Your task to perform on an android device: Add "bose soundlink" to the cart on amazon.com Image 0: 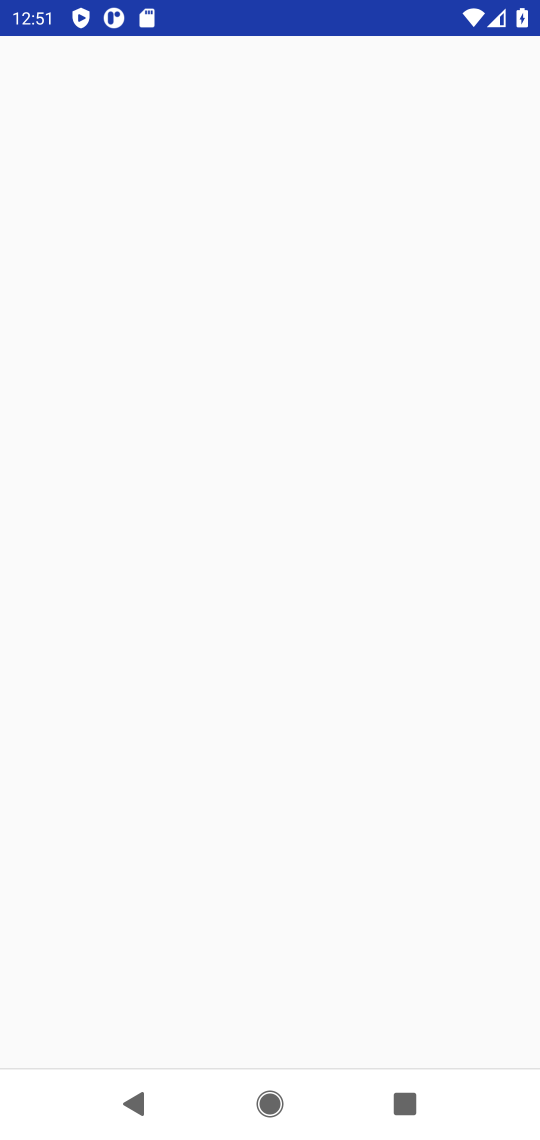
Step 0: drag from (314, 956) to (477, 336)
Your task to perform on an android device: Add "bose soundlink" to the cart on amazon.com Image 1: 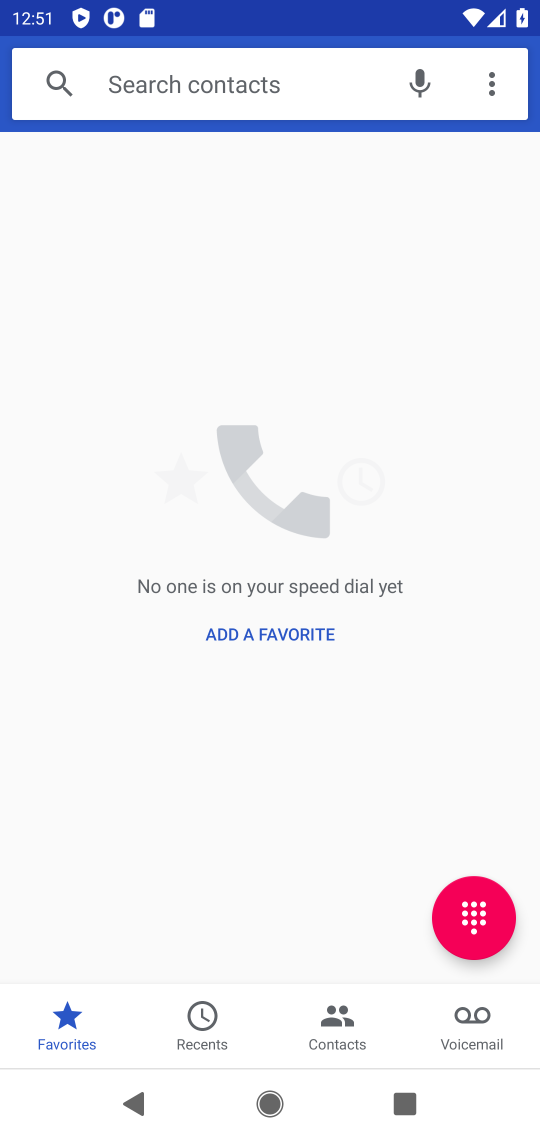
Step 1: press home button
Your task to perform on an android device: Add "bose soundlink" to the cart on amazon.com Image 2: 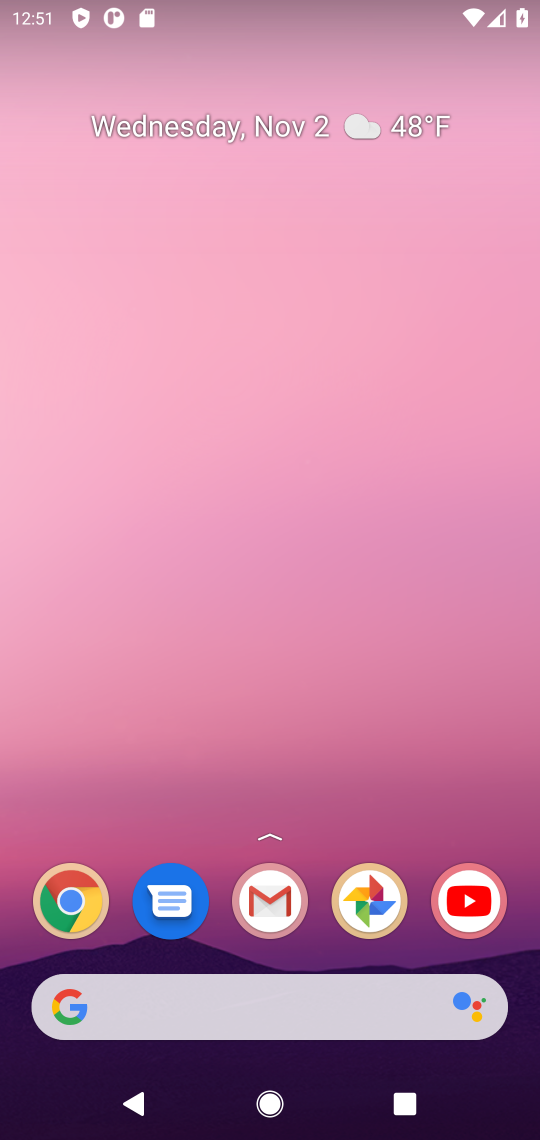
Step 2: drag from (322, 946) to (297, 220)
Your task to perform on an android device: Add "bose soundlink" to the cart on amazon.com Image 3: 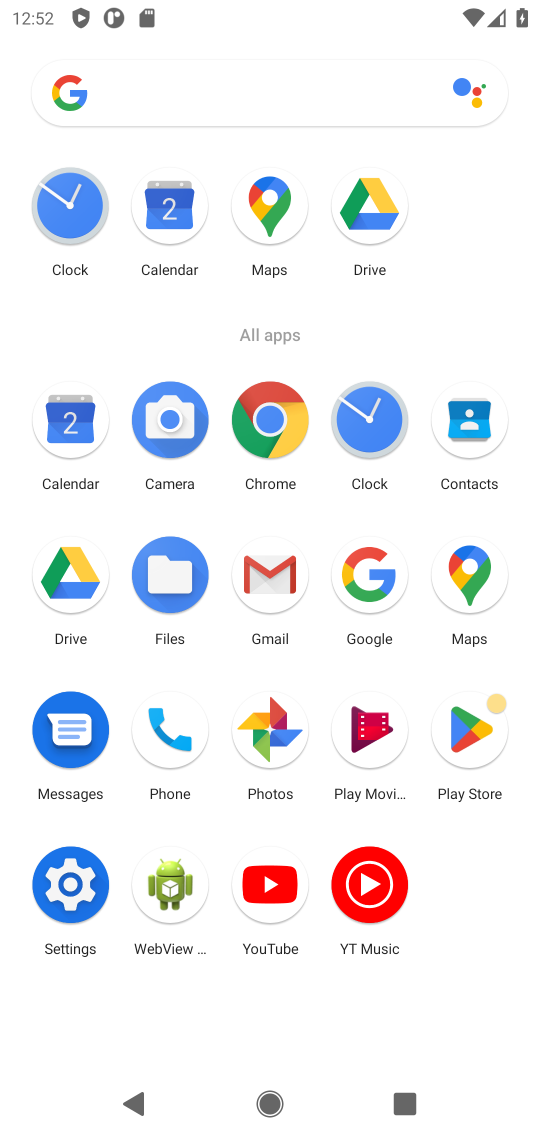
Step 3: click (260, 414)
Your task to perform on an android device: Add "bose soundlink" to the cart on amazon.com Image 4: 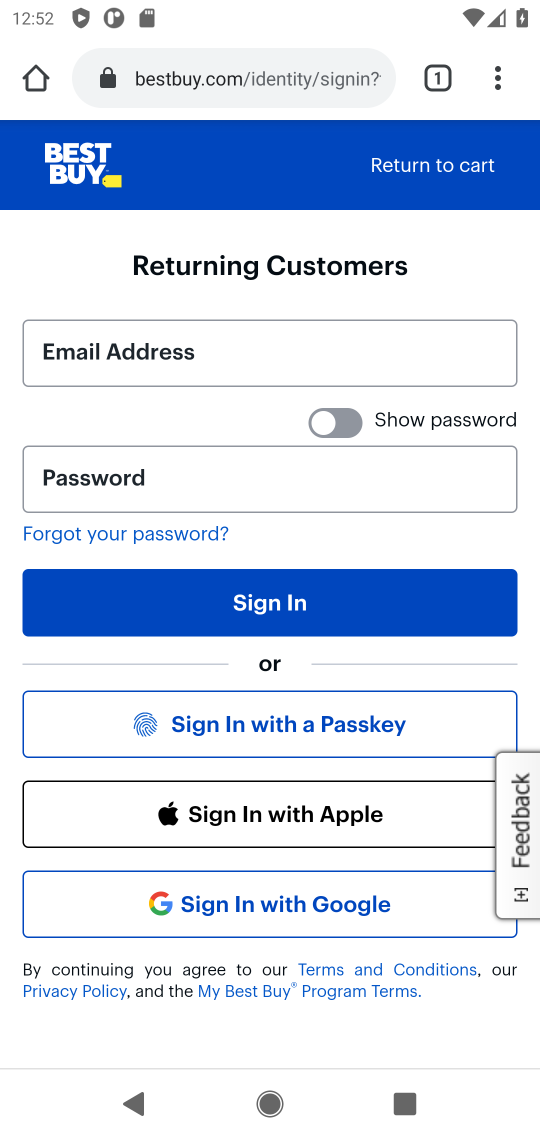
Step 4: click (281, 77)
Your task to perform on an android device: Add "bose soundlink" to the cart on amazon.com Image 5: 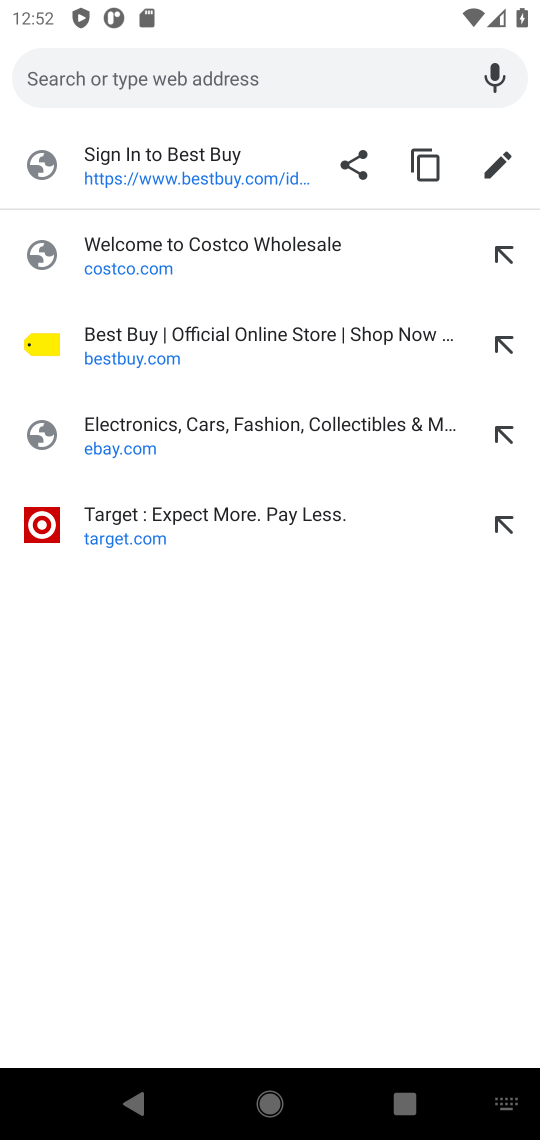
Step 5: type "amazon.com"
Your task to perform on an android device: Add "bose soundlink" to the cart on amazon.com Image 6: 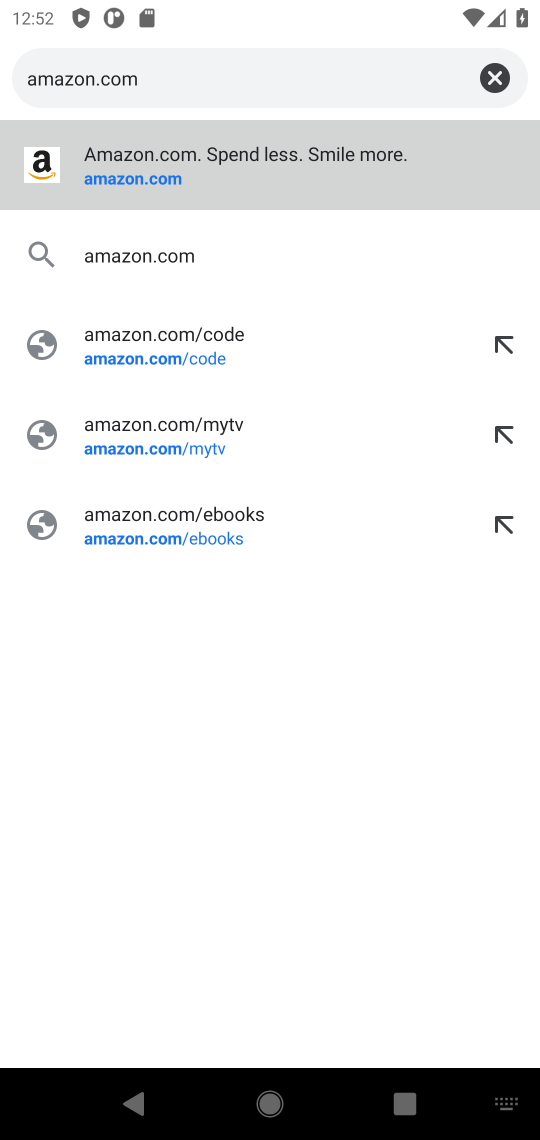
Step 6: press enter
Your task to perform on an android device: Add "bose soundlink" to the cart on amazon.com Image 7: 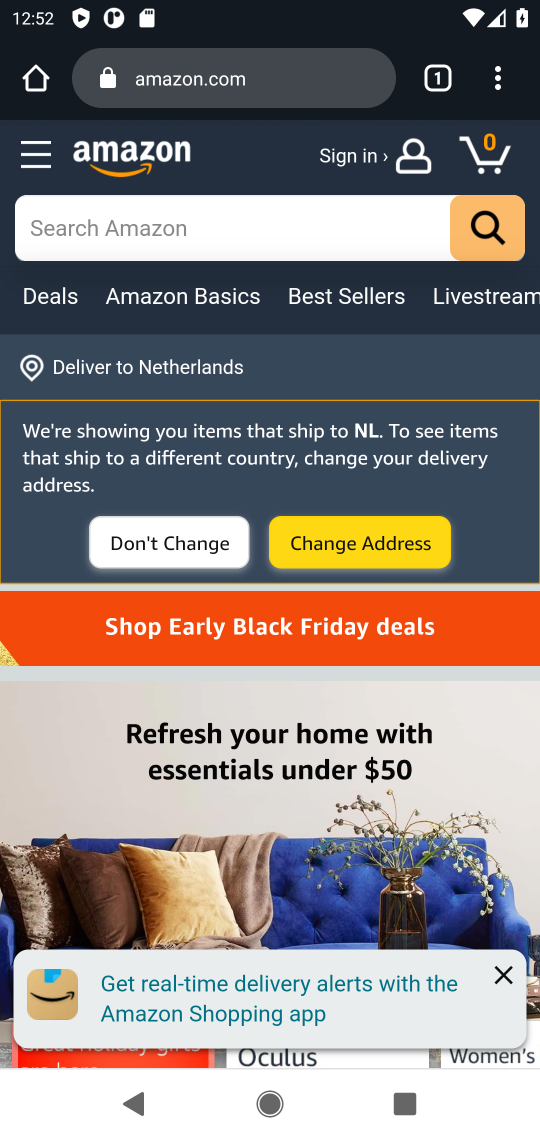
Step 7: click (108, 233)
Your task to perform on an android device: Add "bose soundlink" to the cart on amazon.com Image 8: 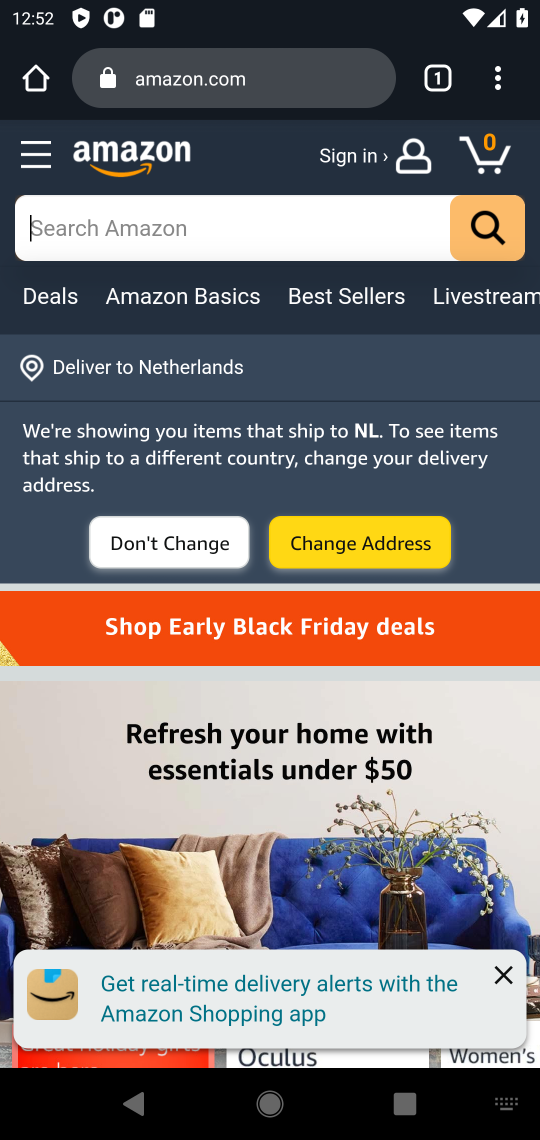
Step 8: type "bose soundlink"
Your task to perform on an android device: Add "bose soundlink" to the cart on amazon.com Image 9: 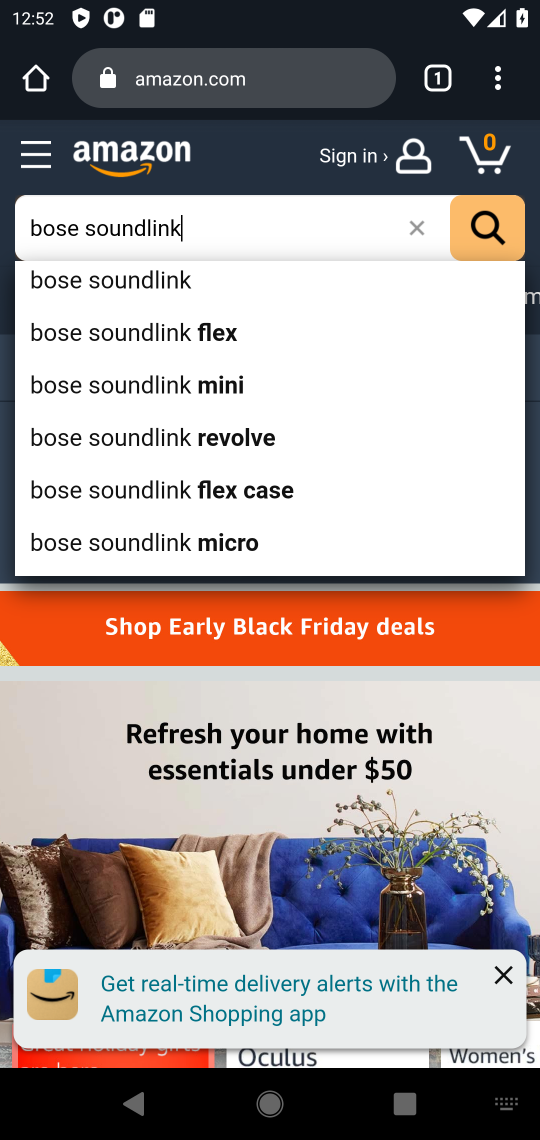
Step 9: press enter
Your task to perform on an android device: Add "bose soundlink" to the cart on amazon.com Image 10: 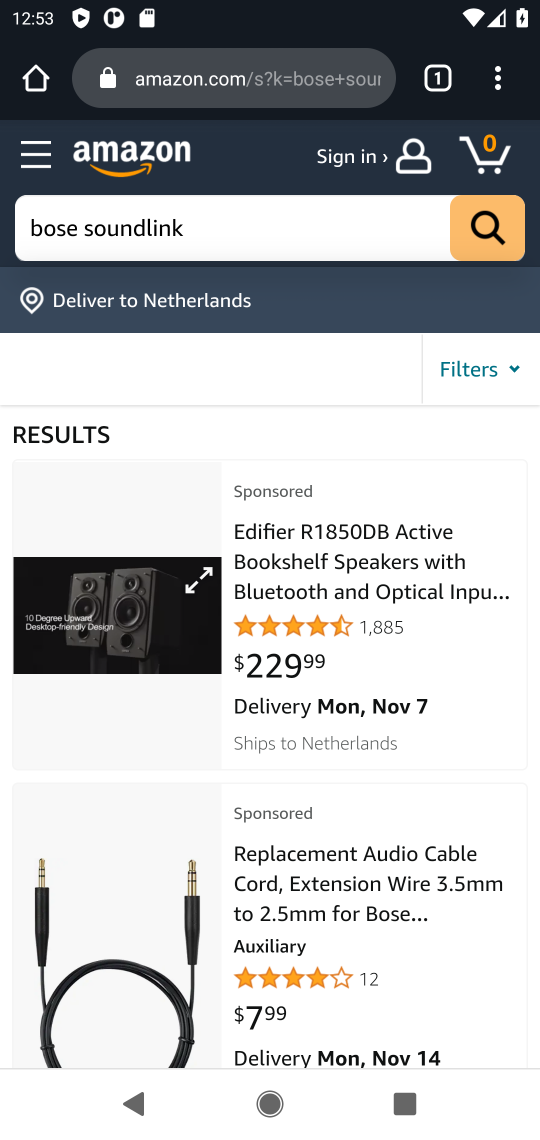
Step 10: drag from (344, 992) to (511, 302)
Your task to perform on an android device: Add "bose soundlink" to the cart on amazon.com Image 11: 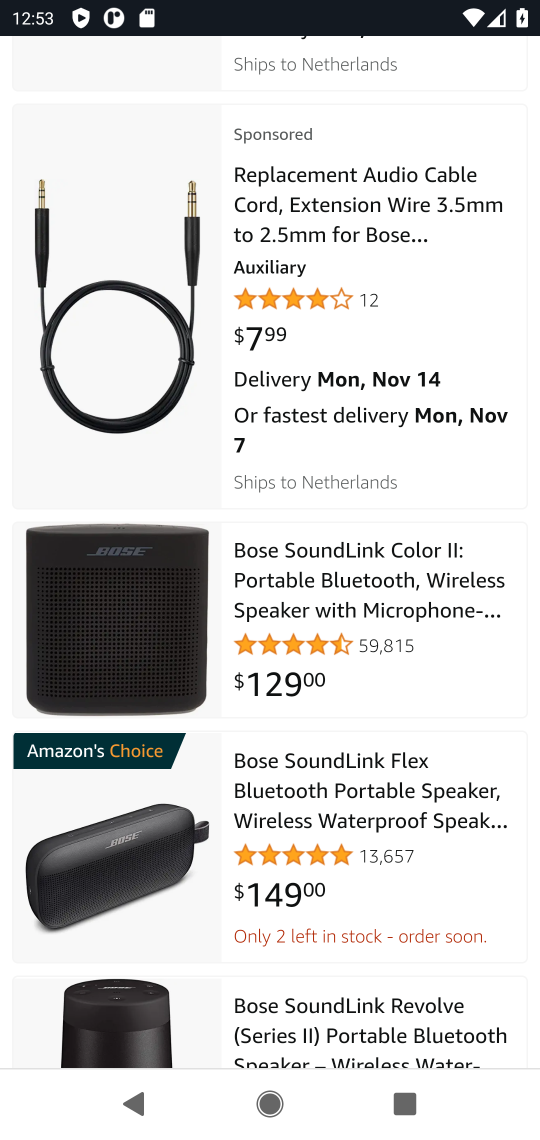
Step 11: click (327, 847)
Your task to perform on an android device: Add "bose soundlink" to the cart on amazon.com Image 12: 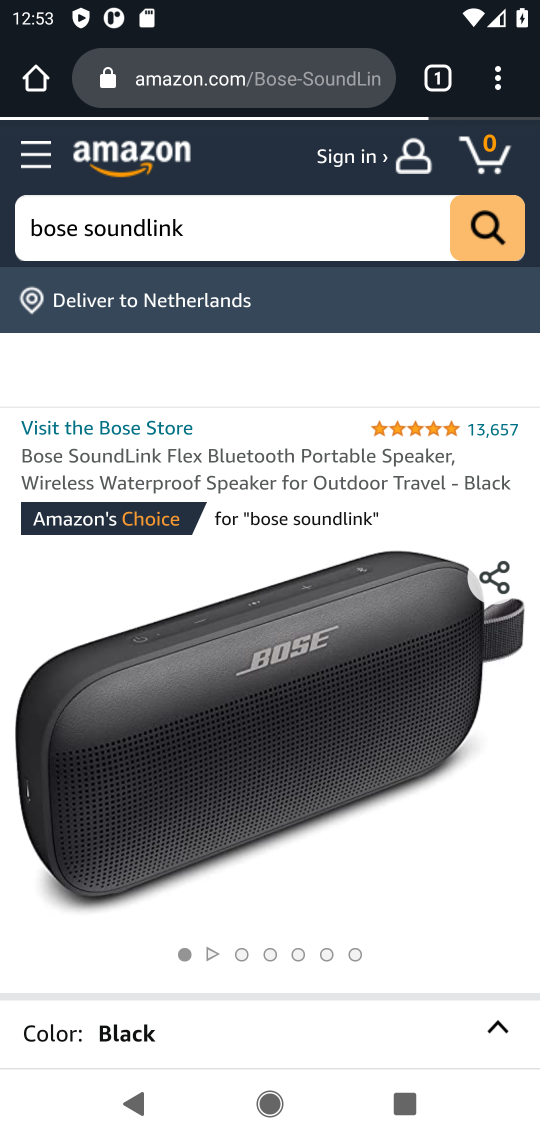
Step 12: drag from (288, 917) to (430, 225)
Your task to perform on an android device: Add "bose soundlink" to the cart on amazon.com Image 13: 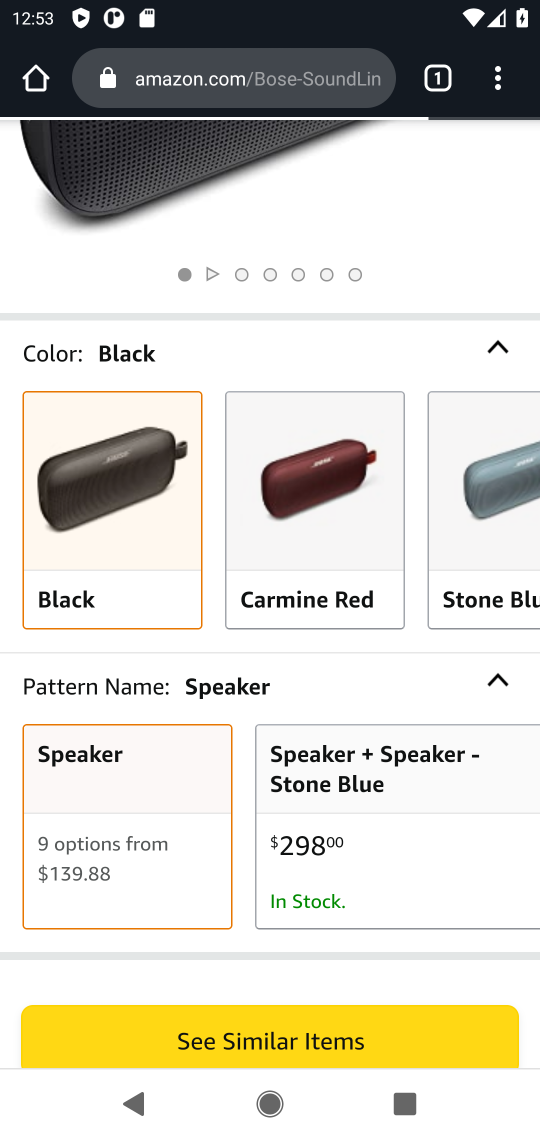
Step 13: drag from (156, 812) to (308, 247)
Your task to perform on an android device: Add "bose soundlink" to the cart on amazon.com Image 14: 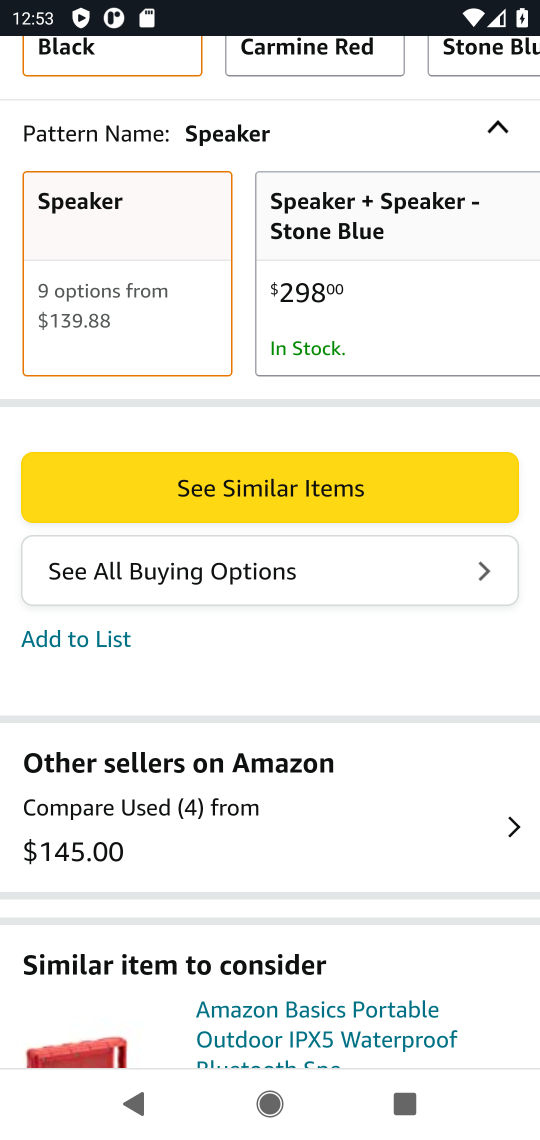
Step 14: drag from (301, 235) to (316, 724)
Your task to perform on an android device: Add "bose soundlink" to the cart on amazon.com Image 15: 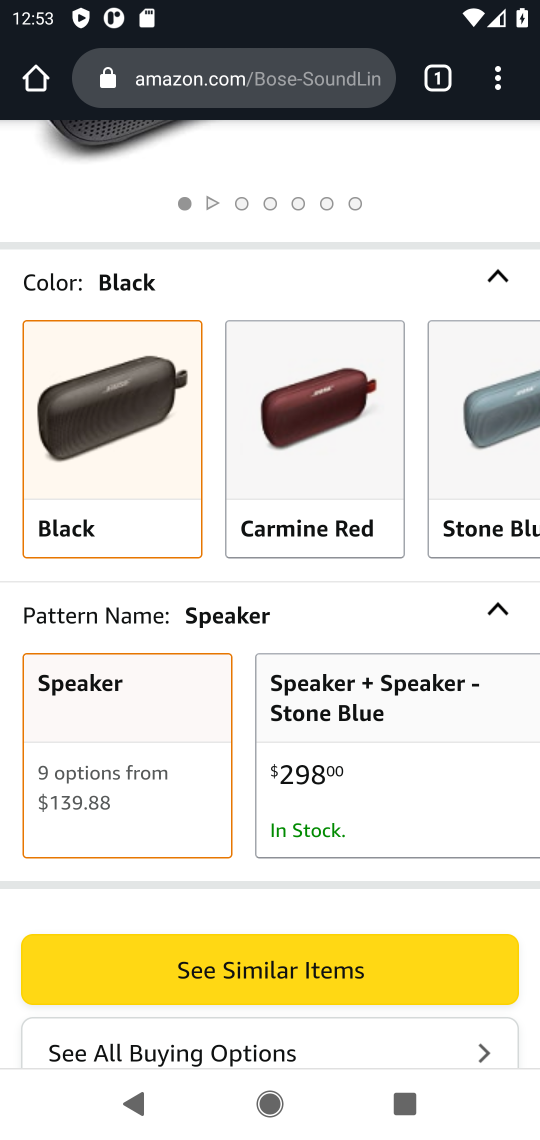
Step 15: drag from (398, 279) to (291, 690)
Your task to perform on an android device: Add "bose soundlink" to the cart on amazon.com Image 16: 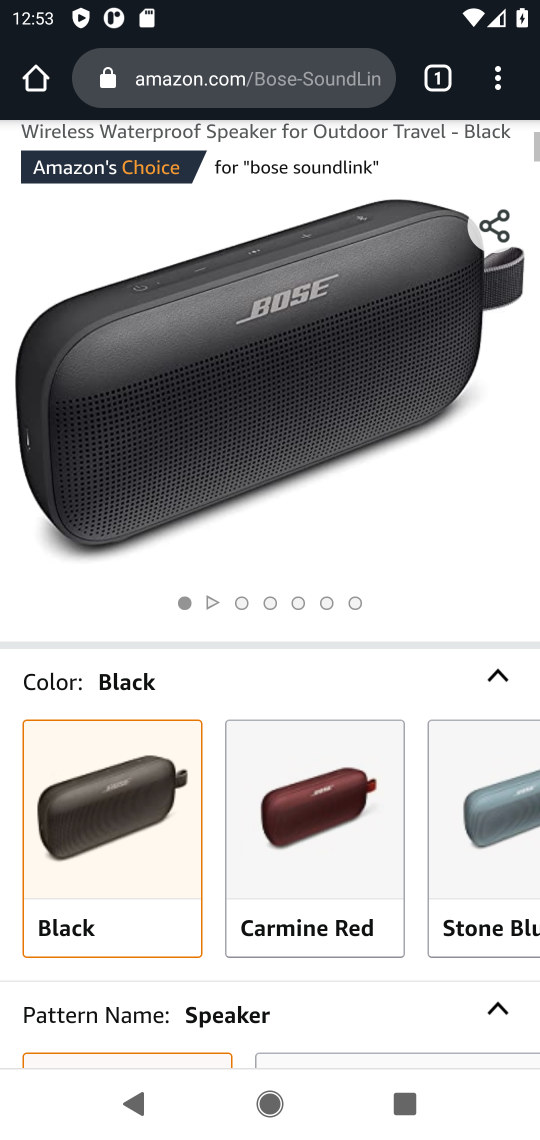
Step 16: drag from (295, 347) to (341, 0)
Your task to perform on an android device: Add "bose soundlink" to the cart on amazon.com Image 17: 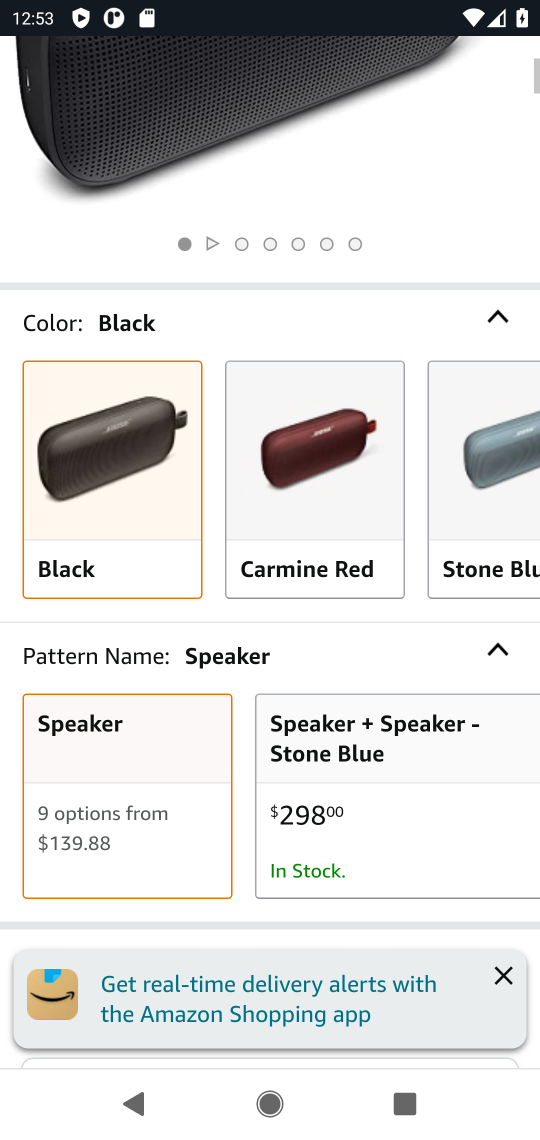
Step 17: drag from (90, 707) to (314, 90)
Your task to perform on an android device: Add "bose soundlink" to the cart on amazon.com Image 18: 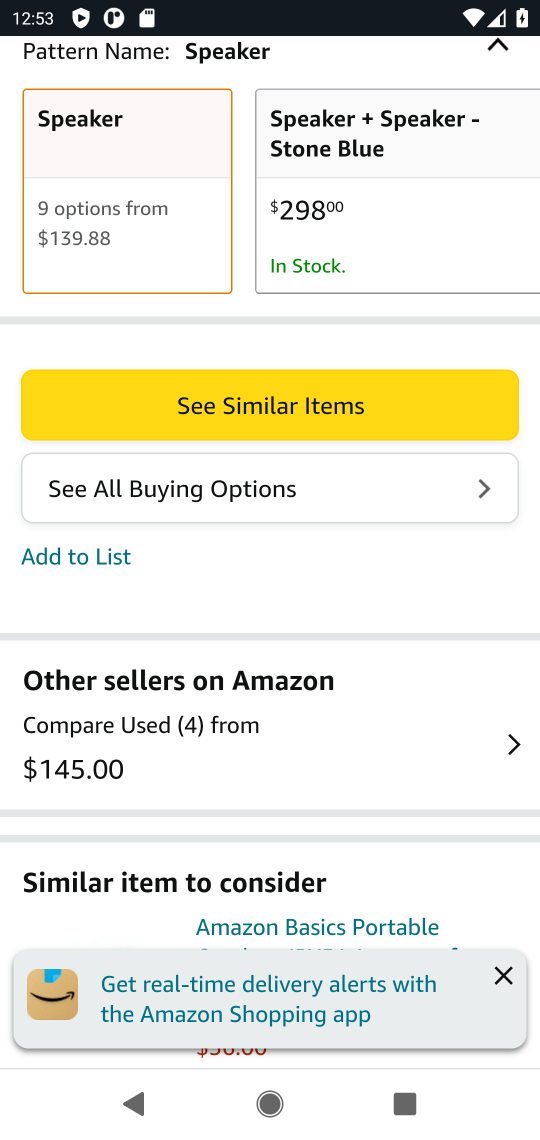
Step 18: click (290, 327)
Your task to perform on an android device: Add "bose soundlink" to the cart on amazon.com Image 19: 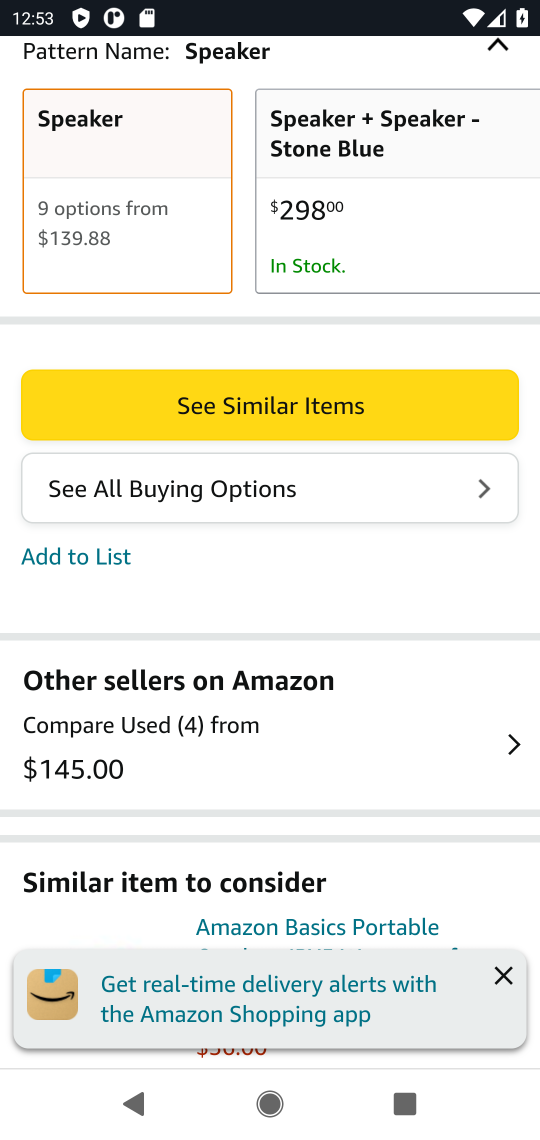
Step 19: task complete